Your task to perform on an android device: remove spam from my inbox in the gmail app Image 0: 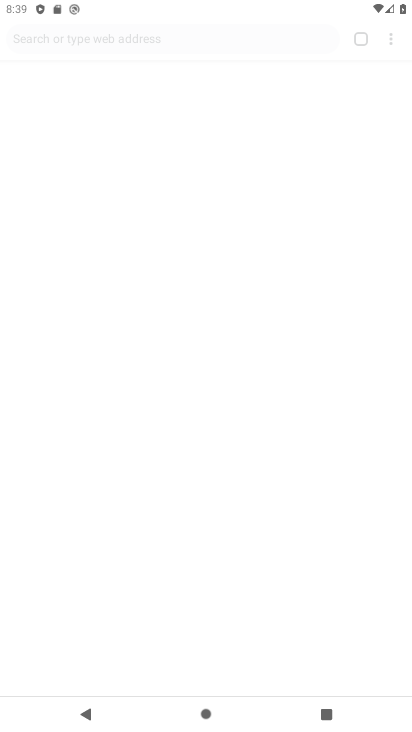
Step 0: click (131, 607)
Your task to perform on an android device: remove spam from my inbox in the gmail app Image 1: 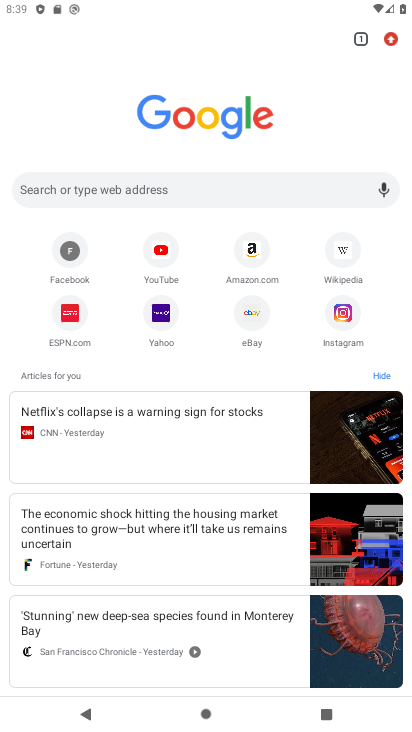
Step 1: press home button
Your task to perform on an android device: remove spam from my inbox in the gmail app Image 2: 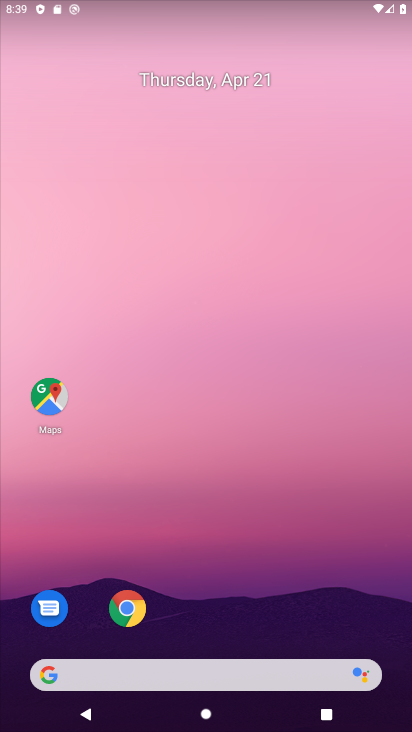
Step 2: drag from (261, 622) to (270, 9)
Your task to perform on an android device: remove spam from my inbox in the gmail app Image 3: 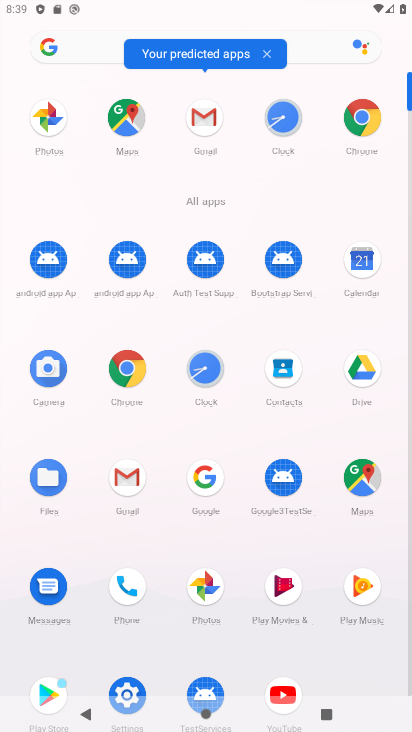
Step 3: click (200, 115)
Your task to perform on an android device: remove spam from my inbox in the gmail app Image 4: 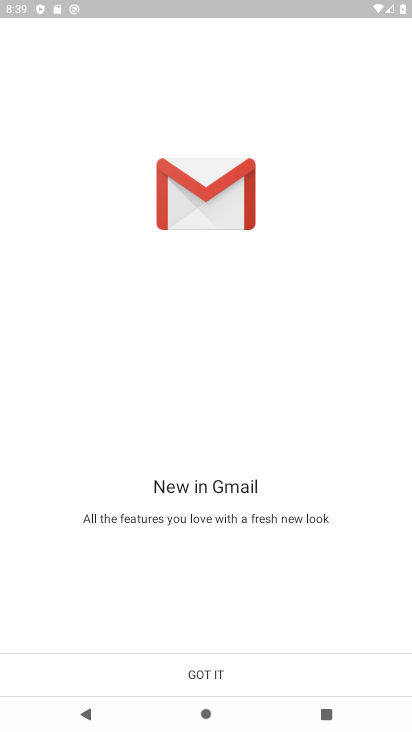
Step 4: click (187, 669)
Your task to perform on an android device: remove spam from my inbox in the gmail app Image 5: 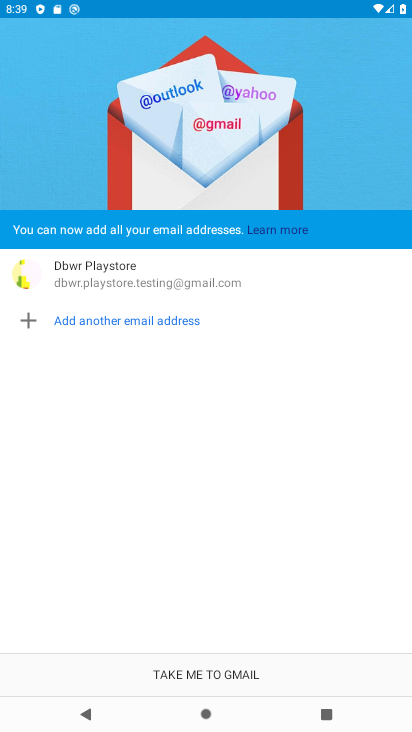
Step 5: click (228, 664)
Your task to perform on an android device: remove spam from my inbox in the gmail app Image 6: 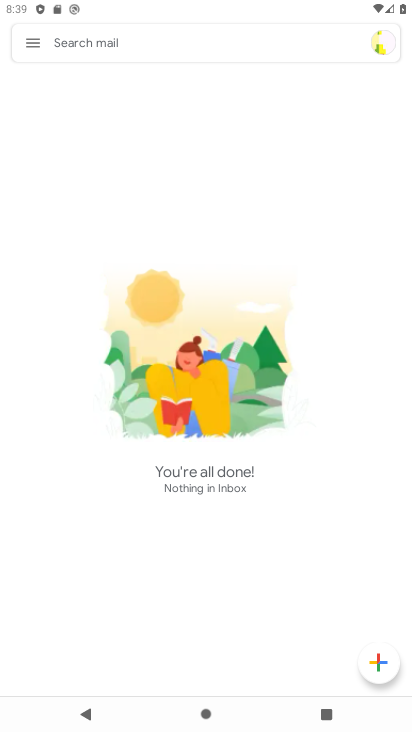
Step 6: click (27, 42)
Your task to perform on an android device: remove spam from my inbox in the gmail app Image 7: 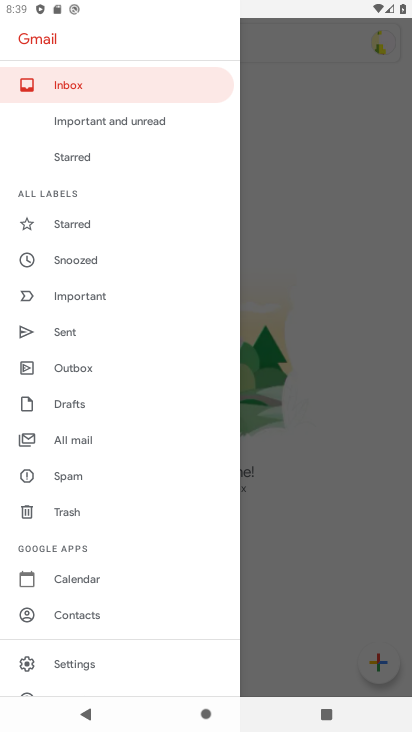
Step 7: click (67, 475)
Your task to perform on an android device: remove spam from my inbox in the gmail app Image 8: 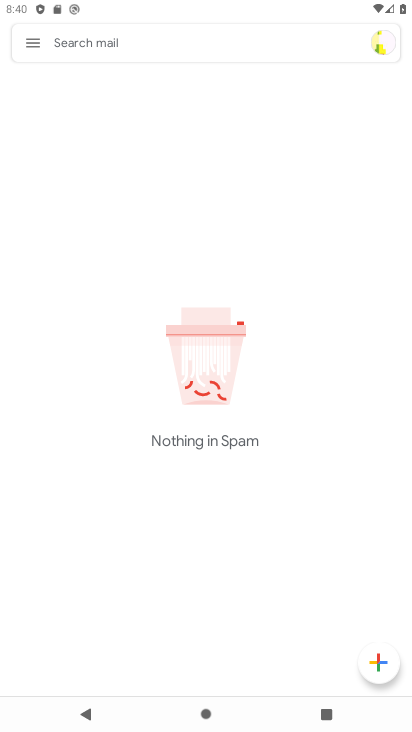
Step 8: task complete